Your task to perform on an android device: open sync settings in chrome Image 0: 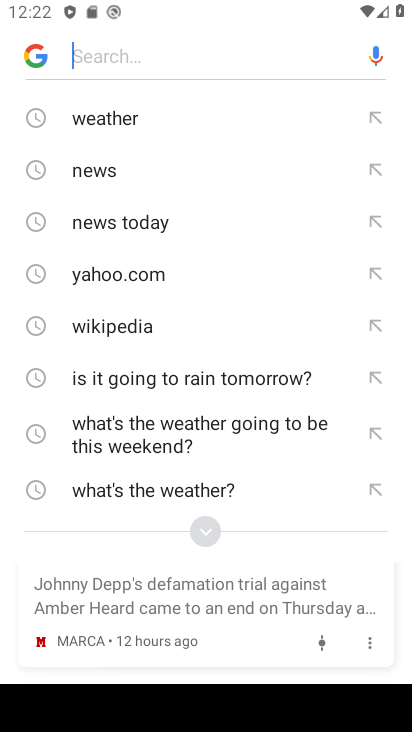
Step 0: press home button
Your task to perform on an android device: open sync settings in chrome Image 1: 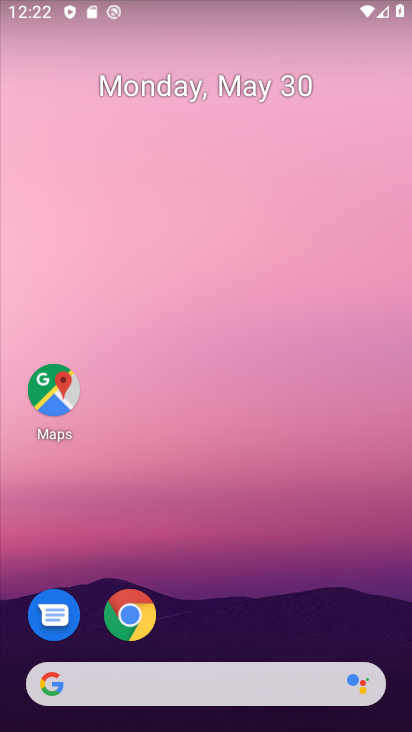
Step 1: click (145, 607)
Your task to perform on an android device: open sync settings in chrome Image 2: 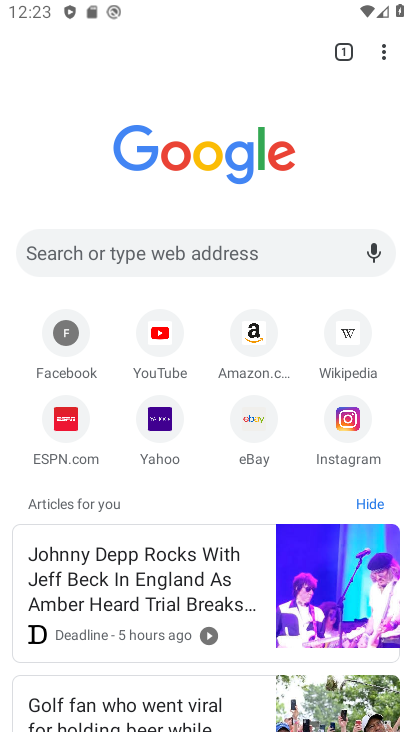
Step 2: drag from (383, 54) to (192, 440)
Your task to perform on an android device: open sync settings in chrome Image 3: 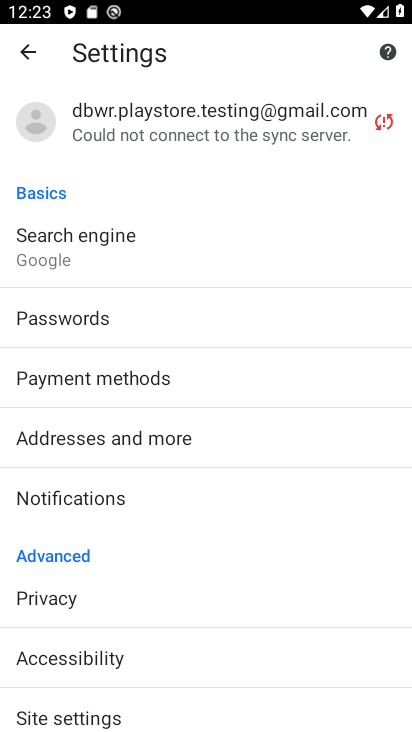
Step 3: click (136, 128)
Your task to perform on an android device: open sync settings in chrome Image 4: 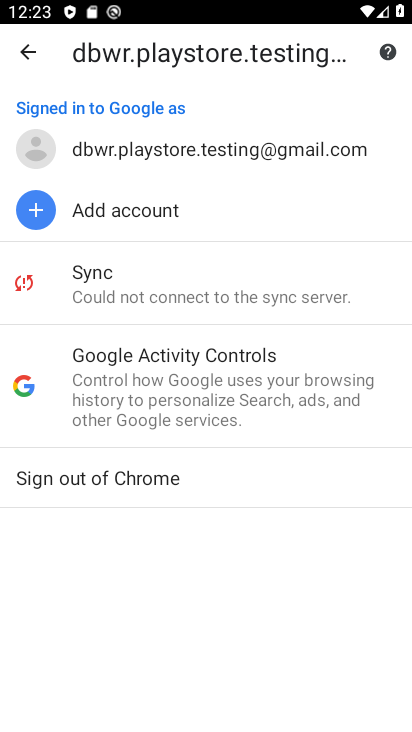
Step 4: task complete